Your task to perform on an android device: Go to network settings Image 0: 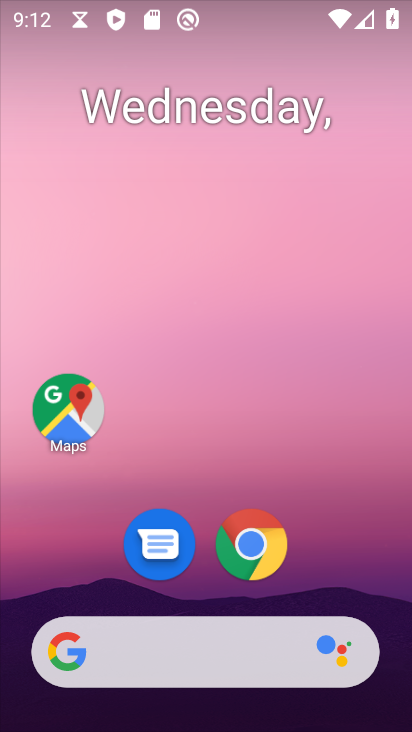
Step 0: drag from (193, 645) to (311, 168)
Your task to perform on an android device: Go to network settings Image 1: 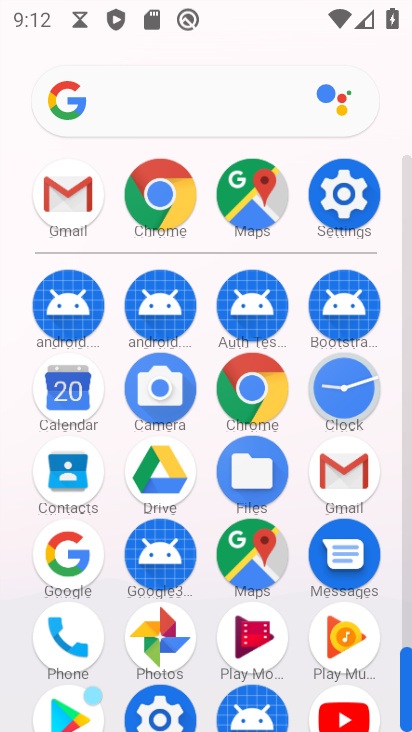
Step 1: click (338, 213)
Your task to perform on an android device: Go to network settings Image 2: 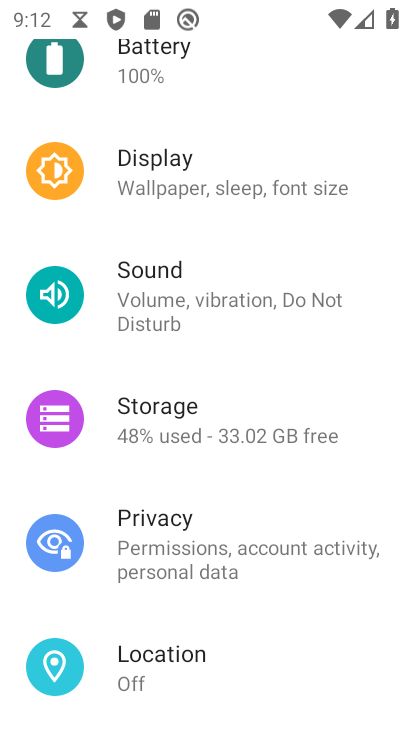
Step 2: drag from (286, 122) to (230, 578)
Your task to perform on an android device: Go to network settings Image 3: 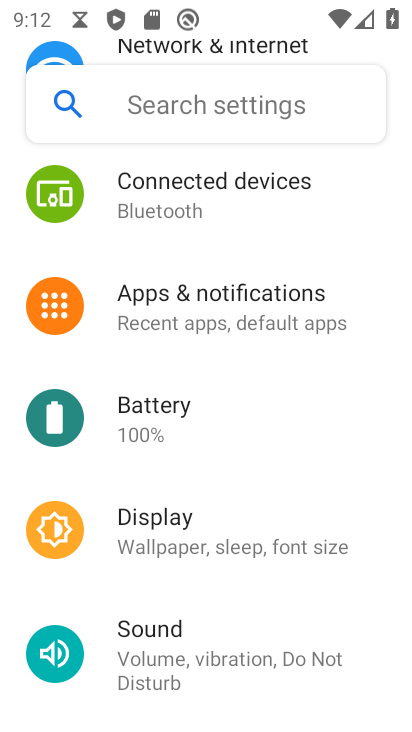
Step 3: drag from (313, 236) to (222, 601)
Your task to perform on an android device: Go to network settings Image 4: 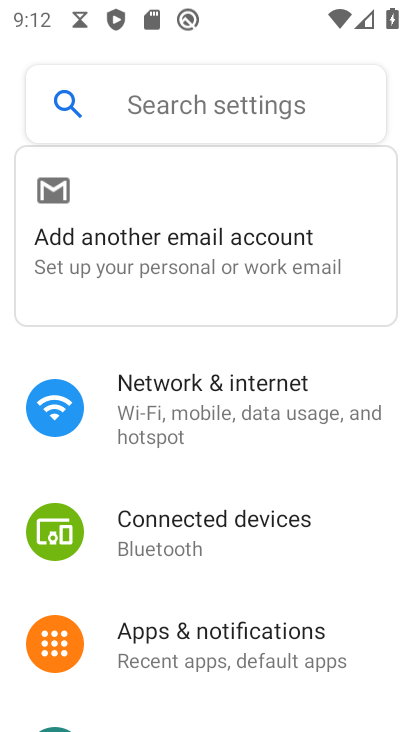
Step 4: click (222, 394)
Your task to perform on an android device: Go to network settings Image 5: 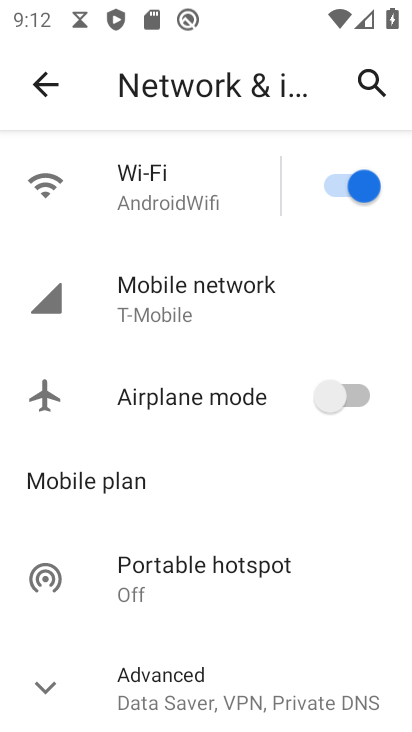
Step 5: click (112, 686)
Your task to perform on an android device: Go to network settings Image 6: 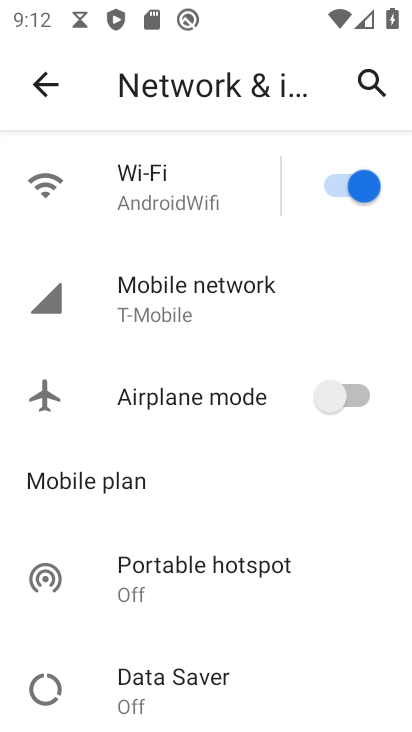
Step 6: task complete